Your task to perform on an android device: Show me productivity apps on the Play Store Image 0: 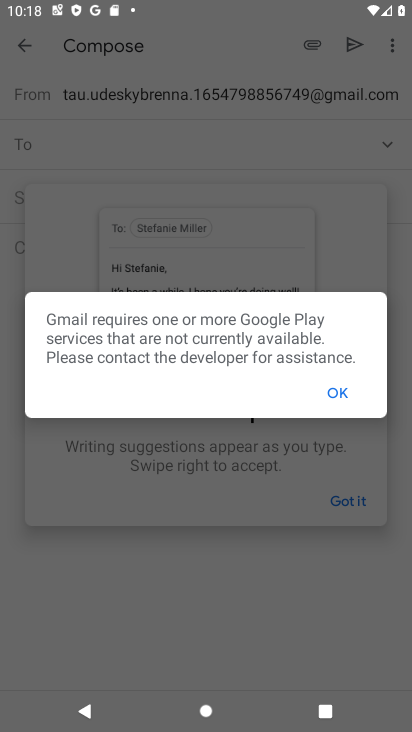
Step 0: press home button
Your task to perform on an android device: Show me productivity apps on the Play Store Image 1: 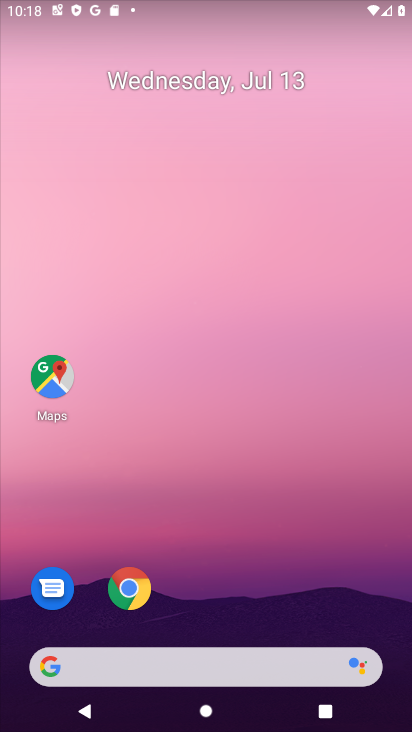
Step 1: drag from (196, 615) to (213, 62)
Your task to perform on an android device: Show me productivity apps on the Play Store Image 2: 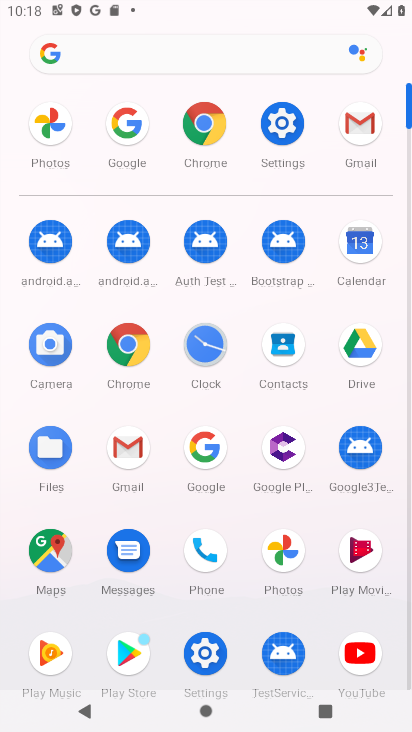
Step 2: click (132, 648)
Your task to perform on an android device: Show me productivity apps on the Play Store Image 3: 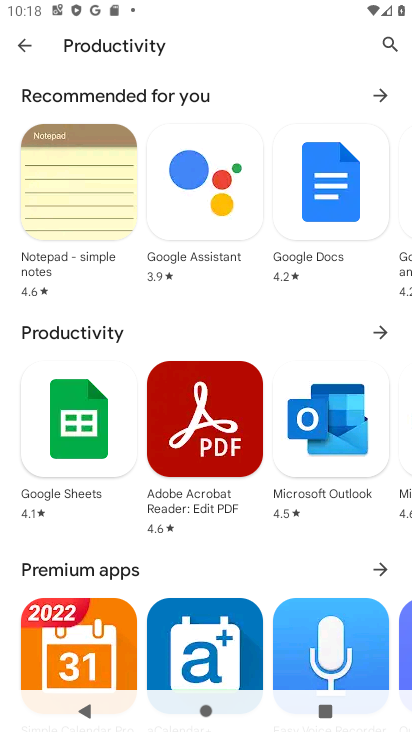
Step 3: task complete